Your task to perform on an android device: Go to Reddit.com Image 0: 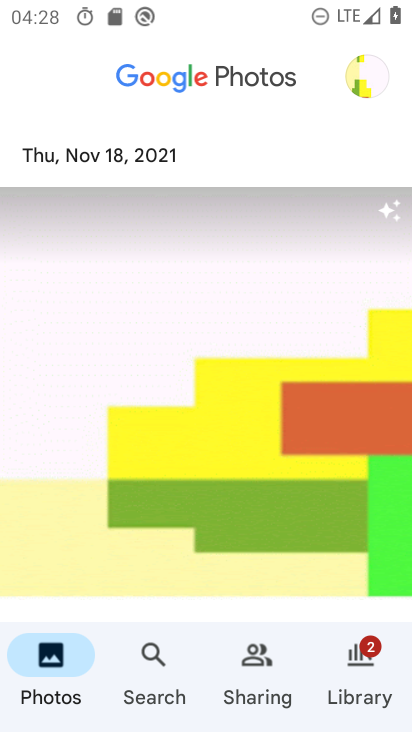
Step 0: press home button
Your task to perform on an android device: Go to Reddit.com Image 1: 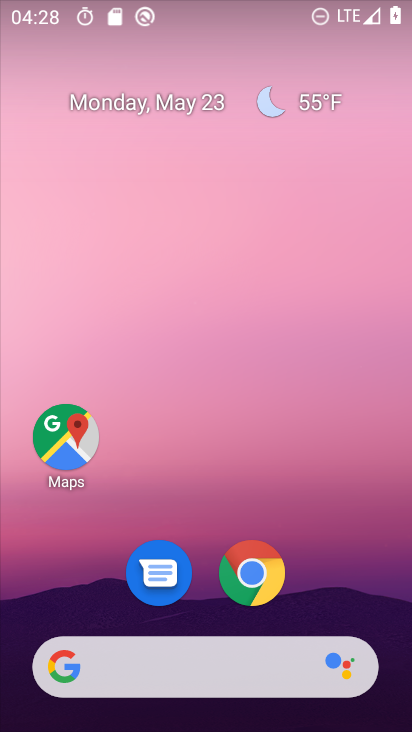
Step 1: click (247, 569)
Your task to perform on an android device: Go to Reddit.com Image 2: 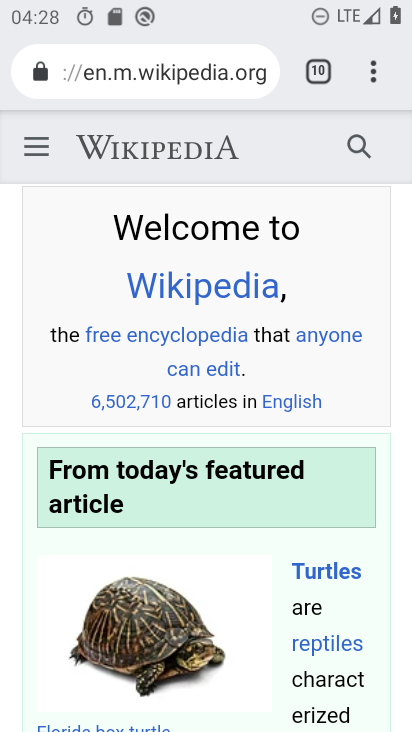
Step 2: click (311, 69)
Your task to perform on an android device: Go to Reddit.com Image 3: 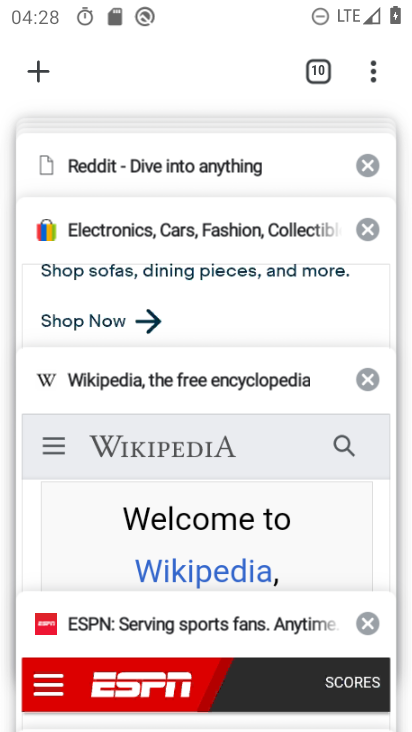
Step 3: click (156, 159)
Your task to perform on an android device: Go to Reddit.com Image 4: 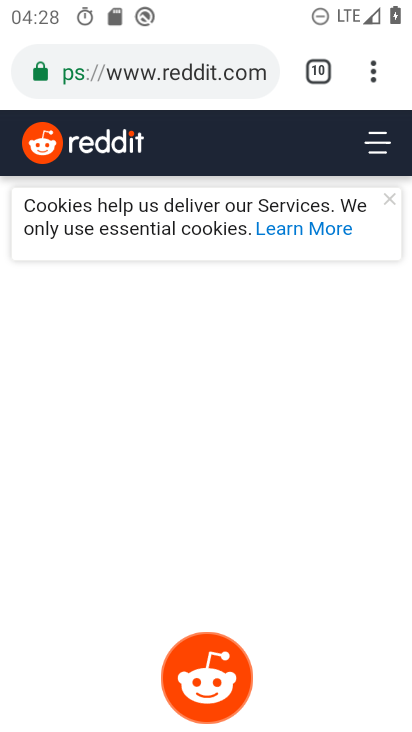
Step 4: task complete